Your task to perform on an android device: turn off improve location accuracy Image 0: 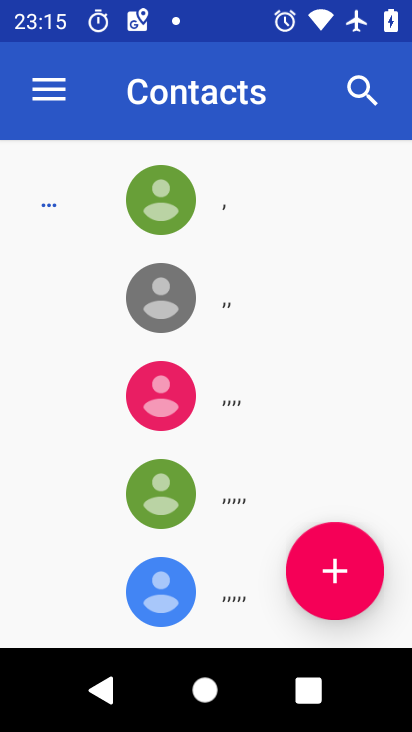
Step 0: press home button
Your task to perform on an android device: turn off improve location accuracy Image 1: 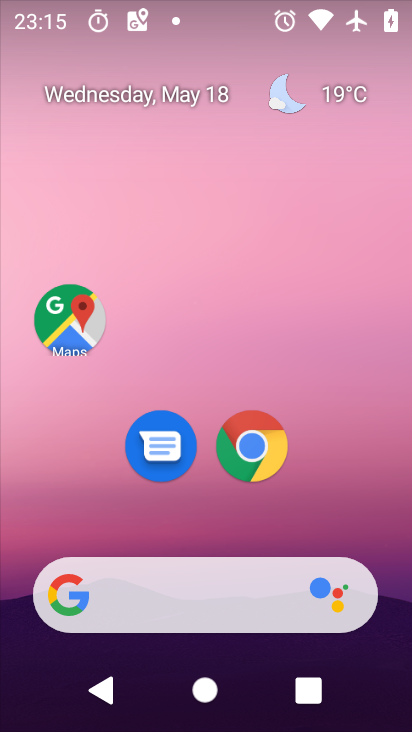
Step 1: drag from (220, 604) to (355, 350)
Your task to perform on an android device: turn off improve location accuracy Image 2: 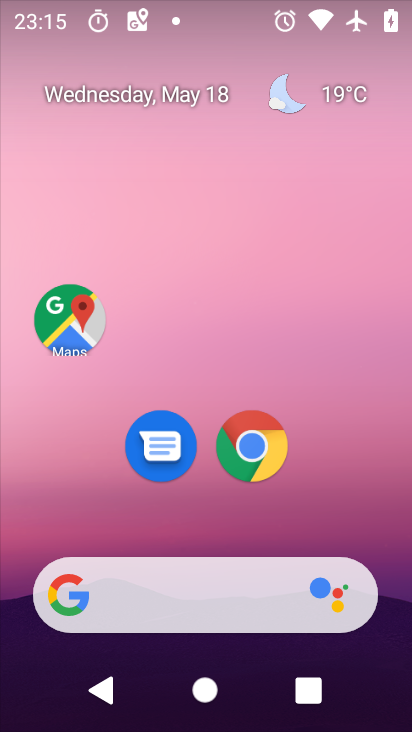
Step 2: drag from (202, 580) to (397, 14)
Your task to perform on an android device: turn off improve location accuracy Image 3: 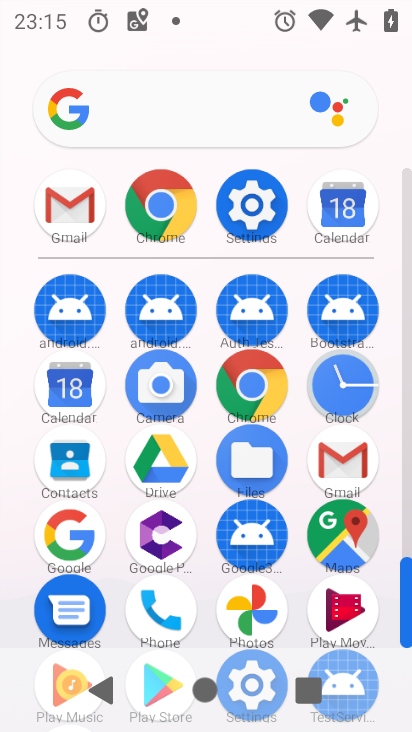
Step 3: click (247, 205)
Your task to perform on an android device: turn off improve location accuracy Image 4: 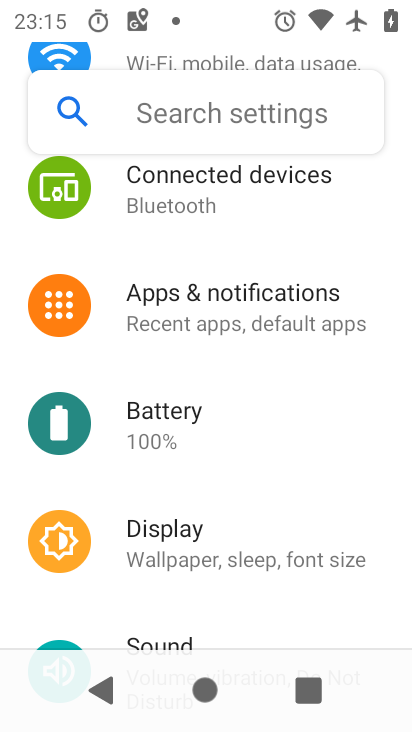
Step 4: drag from (211, 473) to (343, 168)
Your task to perform on an android device: turn off improve location accuracy Image 5: 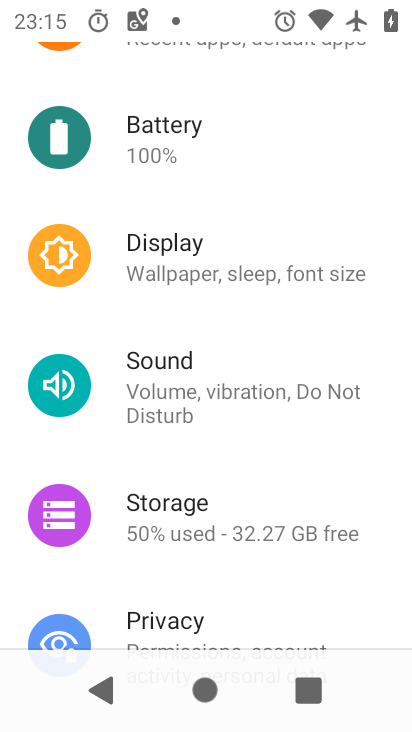
Step 5: drag from (195, 564) to (375, 174)
Your task to perform on an android device: turn off improve location accuracy Image 6: 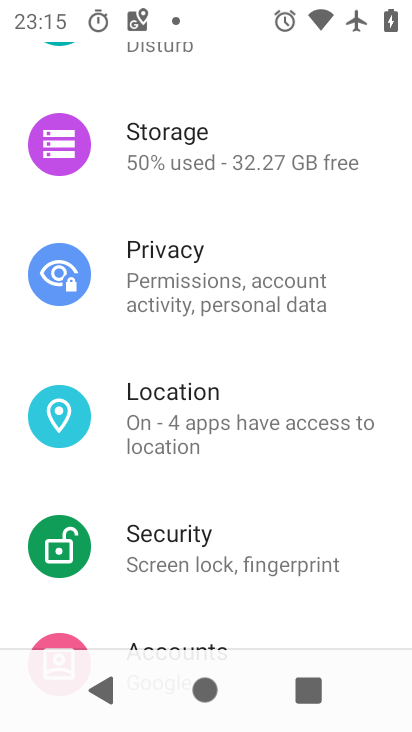
Step 6: click (234, 427)
Your task to perform on an android device: turn off improve location accuracy Image 7: 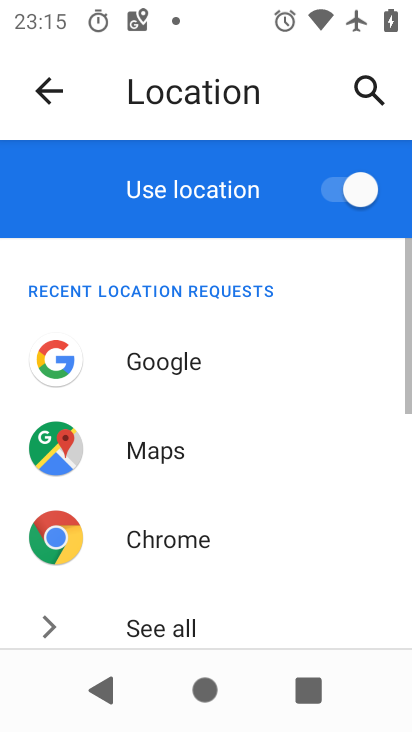
Step 7: drag from (244, 518) to (346, 10)
Your task to perform on an android device: turn off improve location accuracy Image 8: 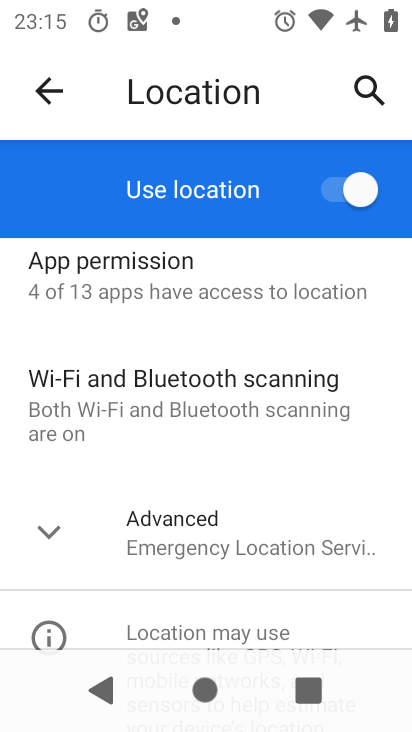
Step 8: drag from (203, 485) to (300, 295)
Your task to perform on an android device: turn off improve location accuracy Image 9: 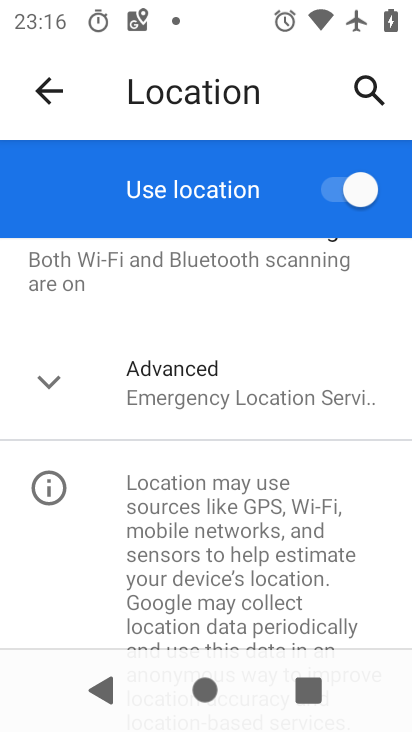
Step 9: click (193, 388)
Your task to perform on an android device: turn off improve location accuracy Image 10: 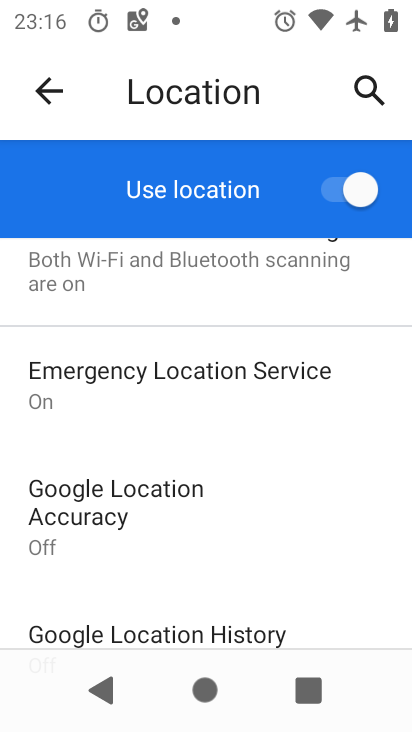
Step 10: click (131, 493)
Your task to perform on an android device: turn off improve location accuracy Image 11: 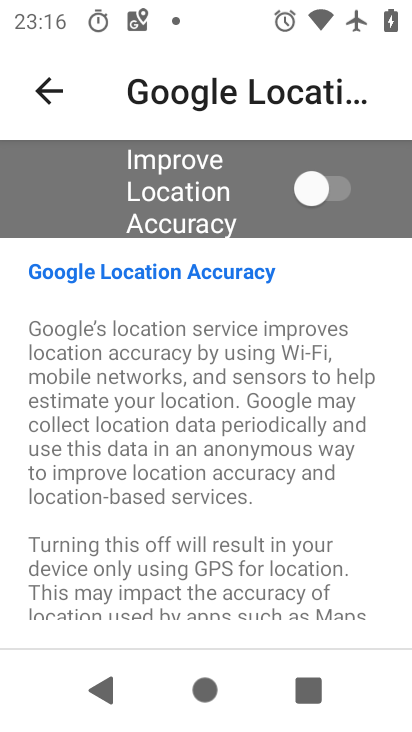
Step 11: task complete